Your task to perform on an android device: toggle show notifications on the lock screen Image 0: 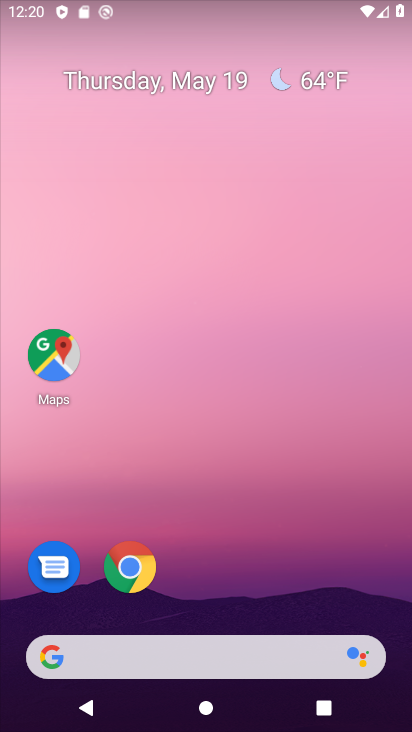
Step 0: drag from (206, 596) to (212, 267)
Your task to perform on an android device: toggle show notifications on the lock screen Image 1: 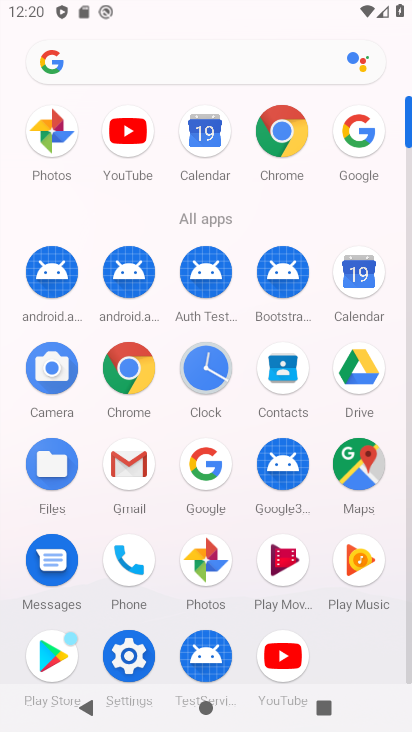
Step 1: click (126, 649)
Your task to perform on an android device: toggle show notifications on the lock screen Image 2: 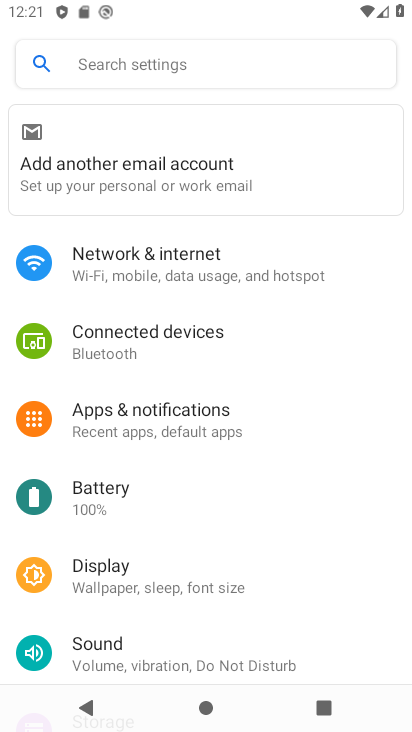
Step 2: click (208, 428)
Your task to perform on an android device: toggle show notifications on the lock screen Image 3: 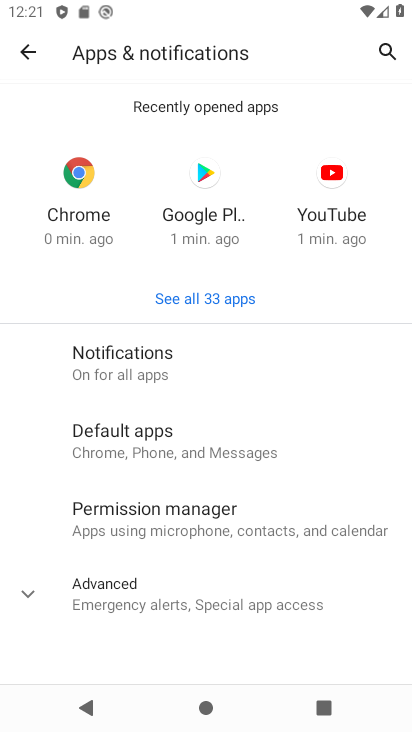
Step 3: click (187, 373)
Your task to perform on an android device: toggle show notifications on the lock screen Image 4: 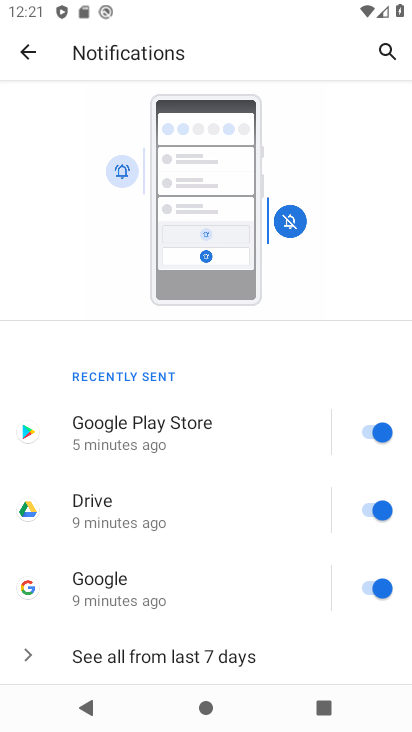
Step 4: drag from (194, 633) to (187, 426)
Your task to perform on an android device: toggle show notifications on the lock screen Image 5: 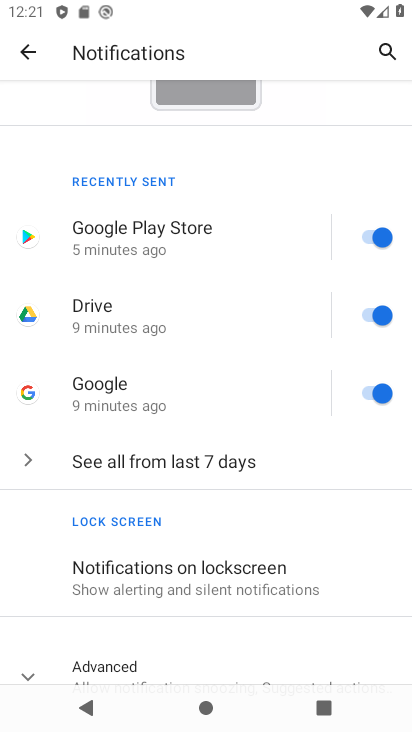
Step 5: click (204, 586)
Your task to perform on an android device: toggle show notifications on the lock screen Image 6: 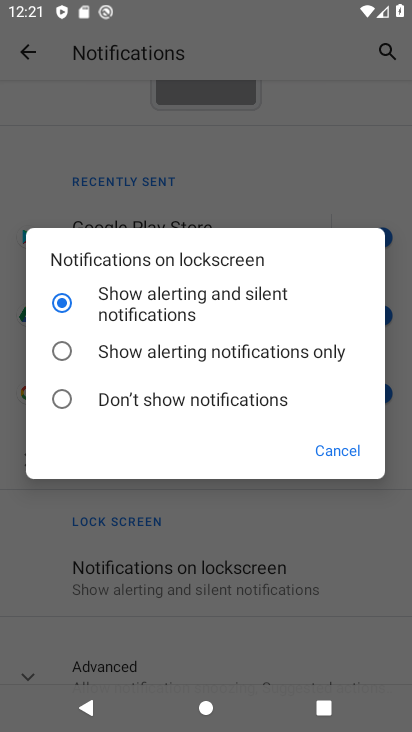
Step 6: task complete